Your task to perform on an android device: Open the web browser Image 0: 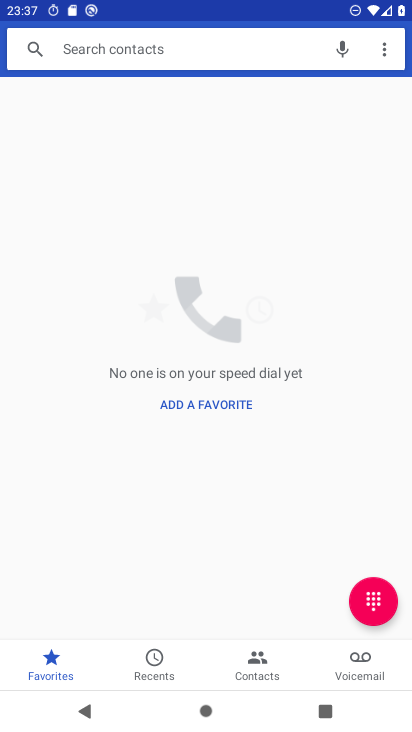
Step 0: press home button
Your task to perform on an android device: Open the web browser Image 1: 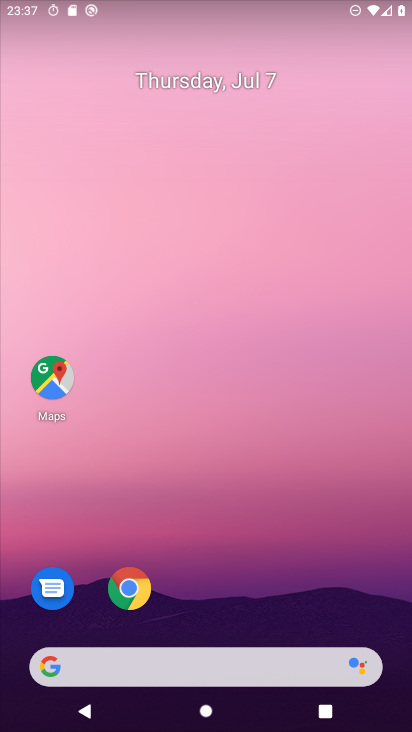
Step 1: drag from (271, 606) to (242, 162)
Your task to perform on an android device: Open the web browser Image 2: 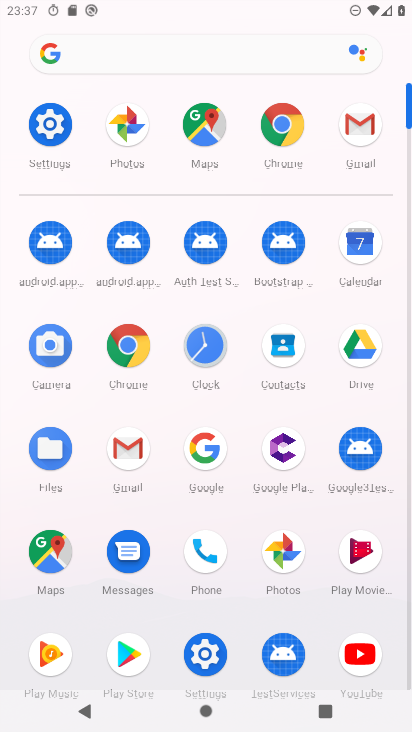
Step 2: click (280, 125)
Your task to perform on an android device: Open the web browser Image 3: 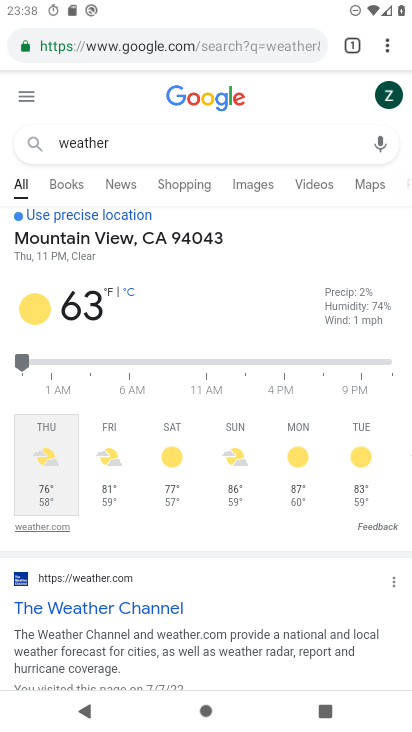
Step 3: task complete